Your task to perform on an android device: Go to Amazon Image 0: 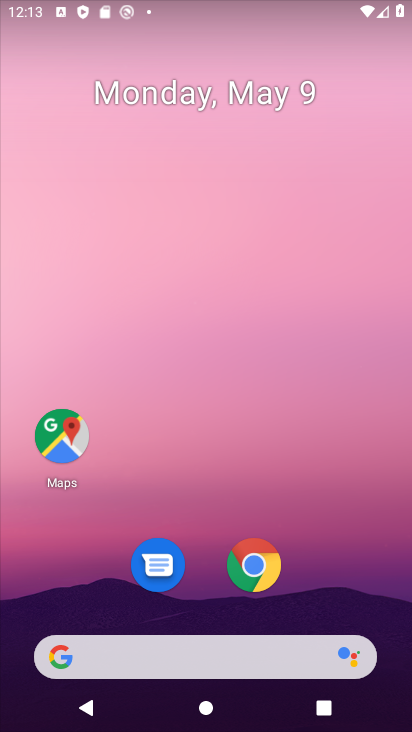
Step 0: drag from (206, 603) to (200, 35)
Your task to perform on an android device: Go to Amazon Image 1: 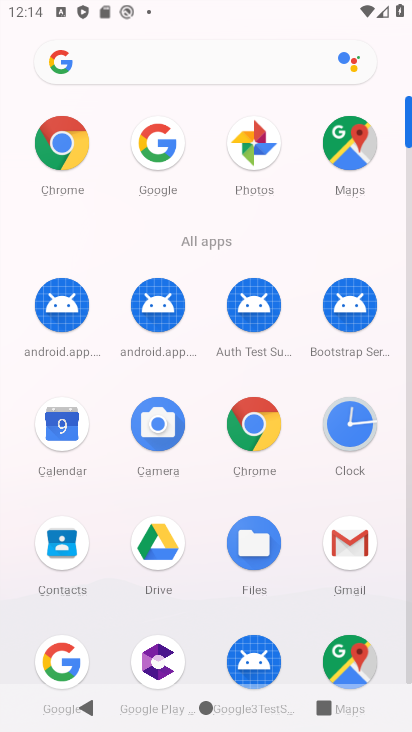
Step 1: click (74, 156)
Your task to perform on an android device: Go to Amazon Image 2: 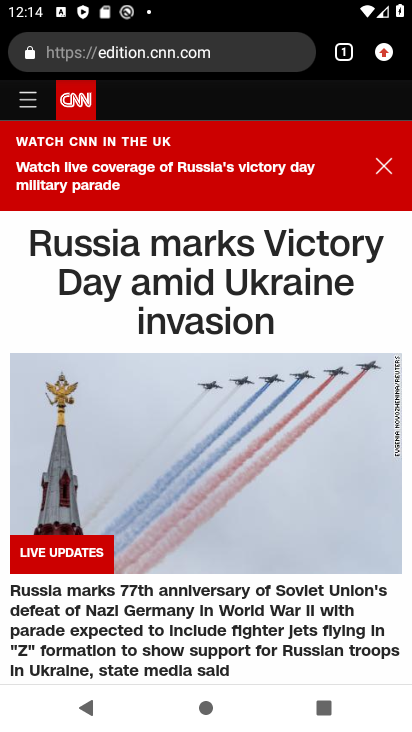
Step 2: click (202, 51)
Your task to perform on an android device: Go to Amazon Image 3: 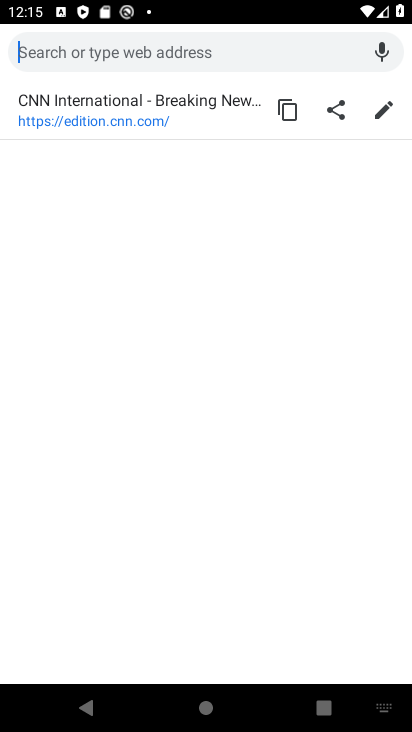
Step 3: type "amazon.com"
Your task to perform on an android device: Go to Amazon Image 4: 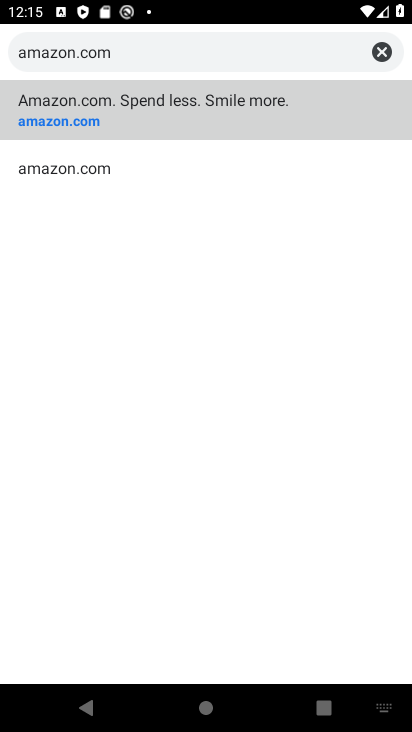
Step 4: click (271, 122)
Your task to perform on an android device: Go to Amazon Image 5: 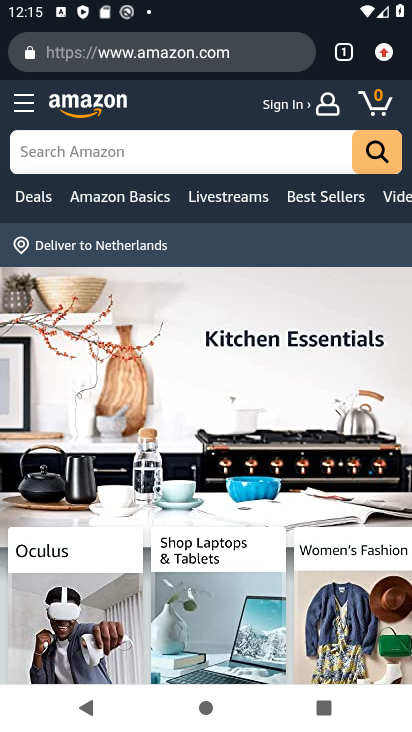
Step 5: task complete